Your task to perform on an android device: Open Google Image 0: 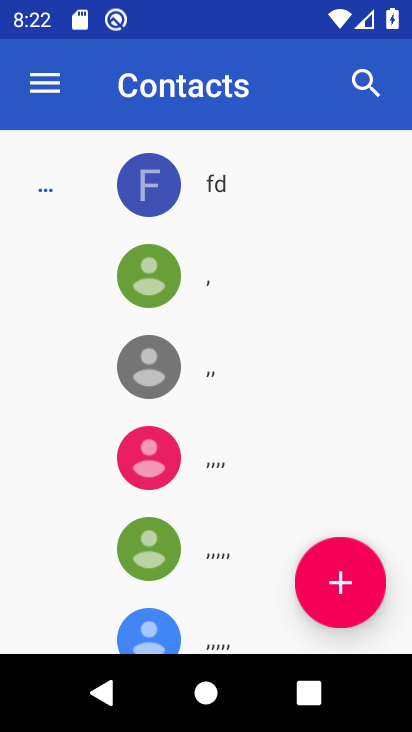
Step 0: press home button
Your task to perform on an android device: Open Google Image 1: 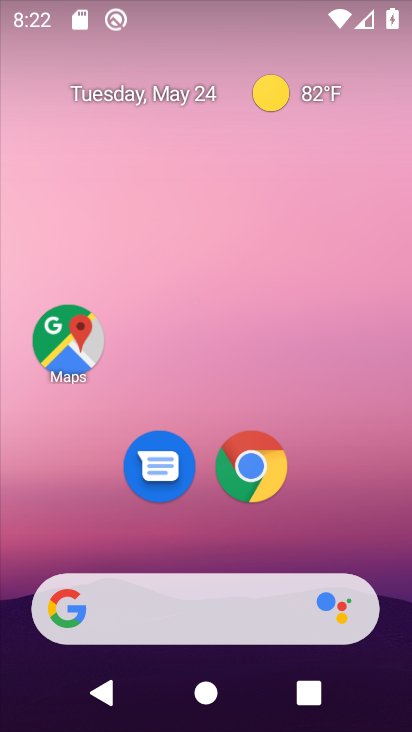
Step 1: drag from (171, 571) to (243, 215)
Your task to perform on an android device: Open Google Image 2: 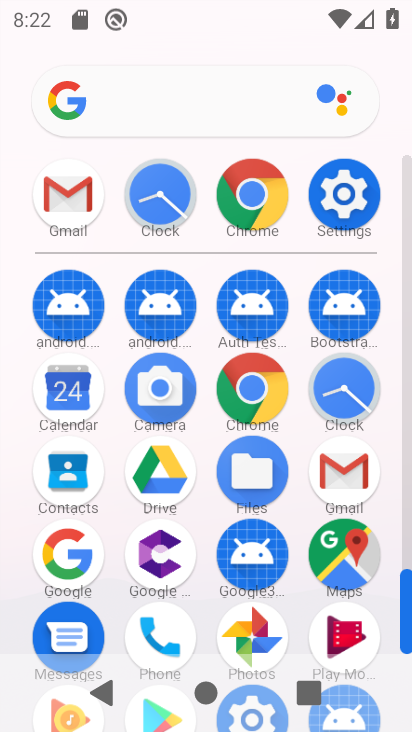
Step 2: click (79, 552)
Your task to perform on an android device: Open Google Image 3: 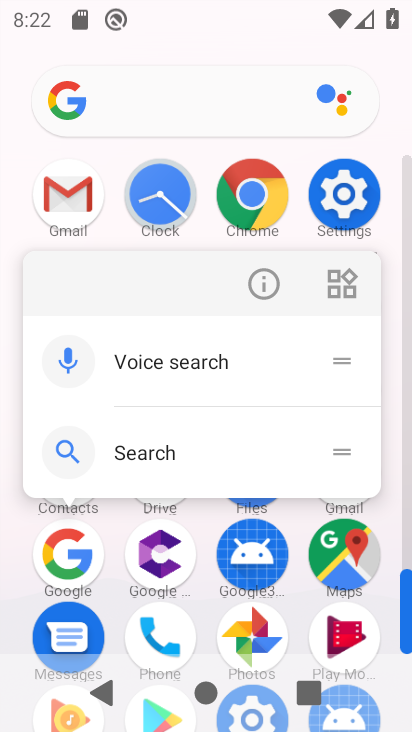
Step 3: click (73, 561)
Your task to perform on an android device: Open Google Image 4: 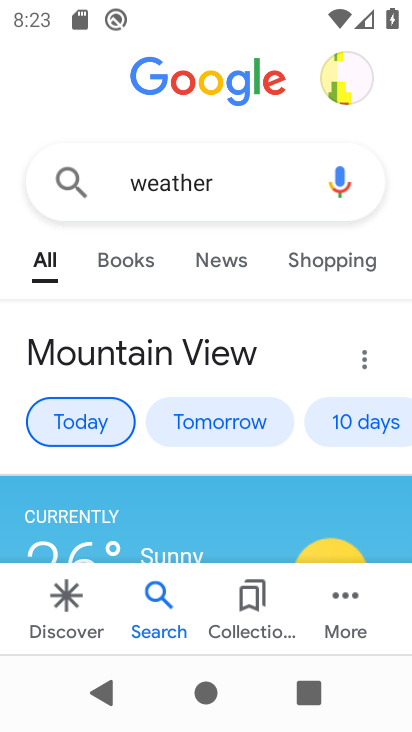
Step 4: click (245, 180)
Your task to perform on an android device: Open Google Image 5: 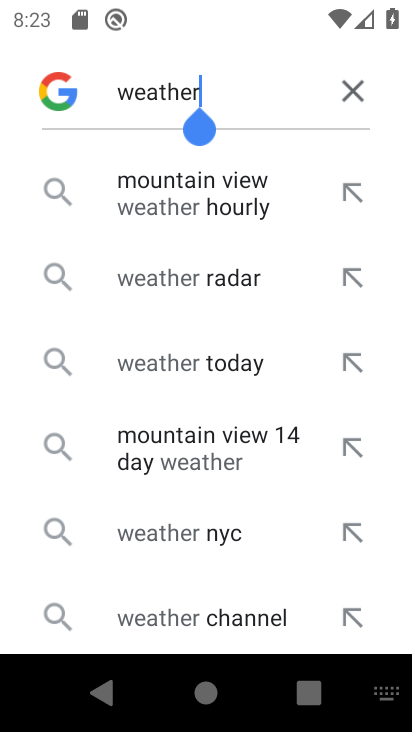
Step 5: click (358, 97)
Your task to perform on an android device: Open Google Image 6: 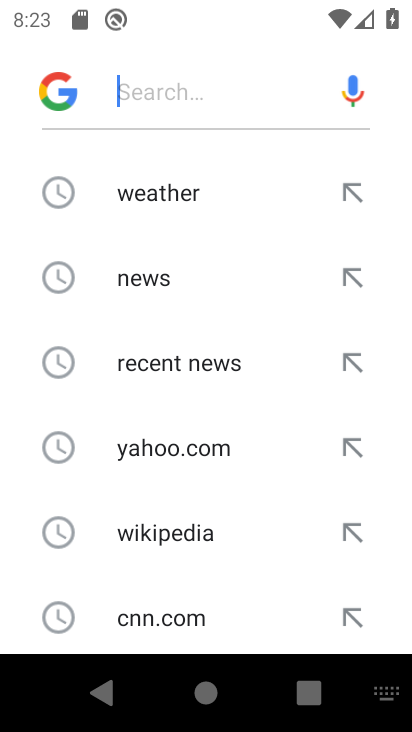
Step 6: task complete